Your task to perform on an android device: Open Yahoo.com Image 0: 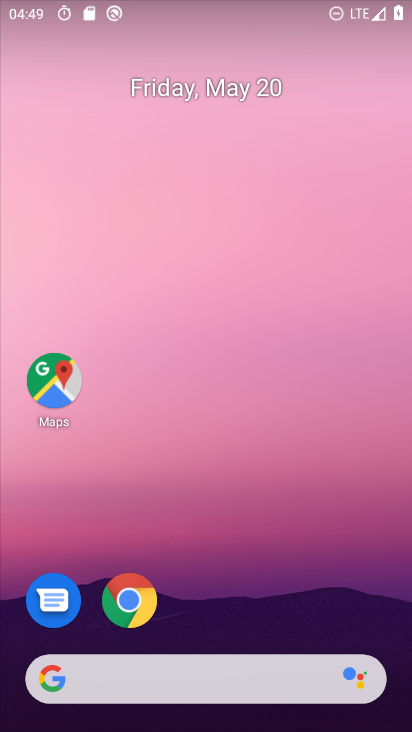
Step 0: click (132, 611)
Your task to perform on an android device: Open Yahoo.com Image 1: 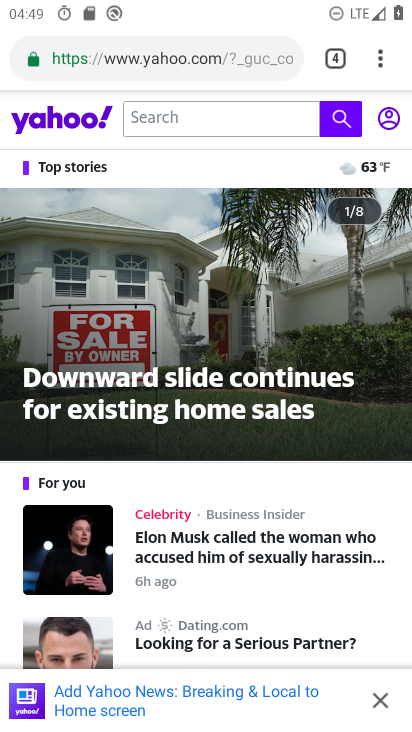
Step 1: task complete